Your task to perform on an android device: Go to accessibility settings Image 0: 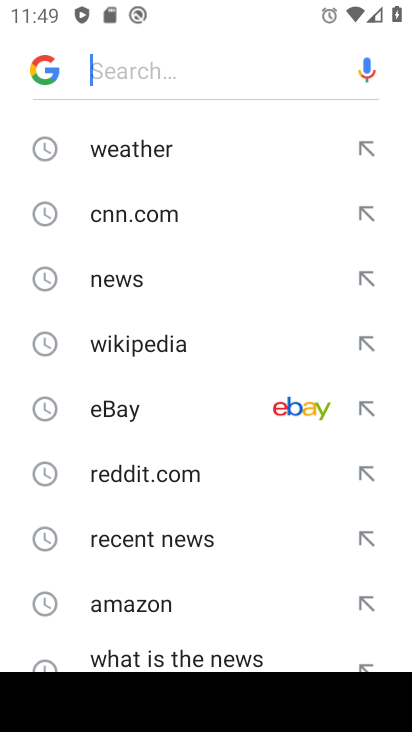
Step 0: press home button
Your task to perform on an android device: Go to accessibility settings Image 1: 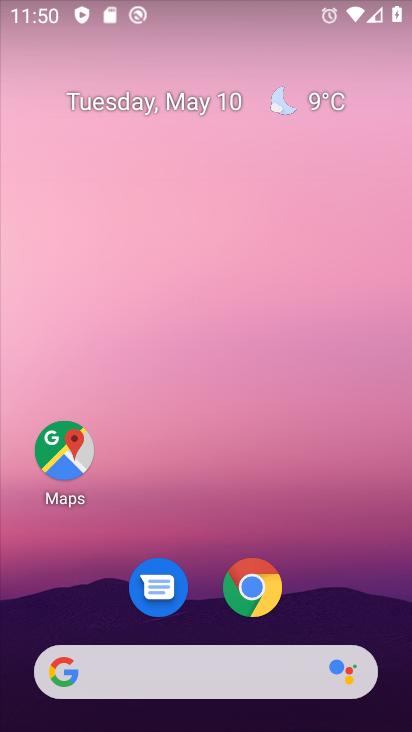
Step 1: drag from (331, 619) to (335, 62)
Your task to perform on an android device: Go to accessibility settings Image 2: 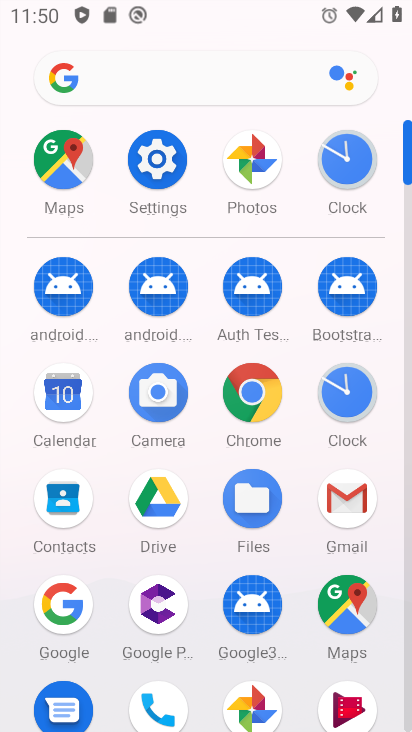
Step 2: click (156, 153)
Your task to perform on an android device: Go to accessibility settings Image 3: 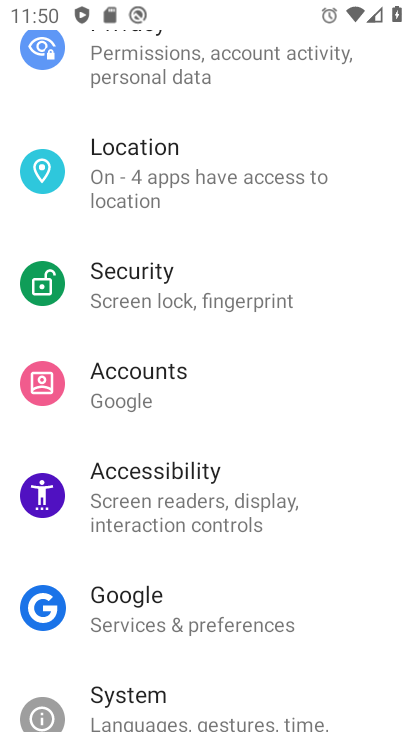
Step 3: click (124, 516)
Your task to perform on an android device: Go to accessibility settings Image 4: 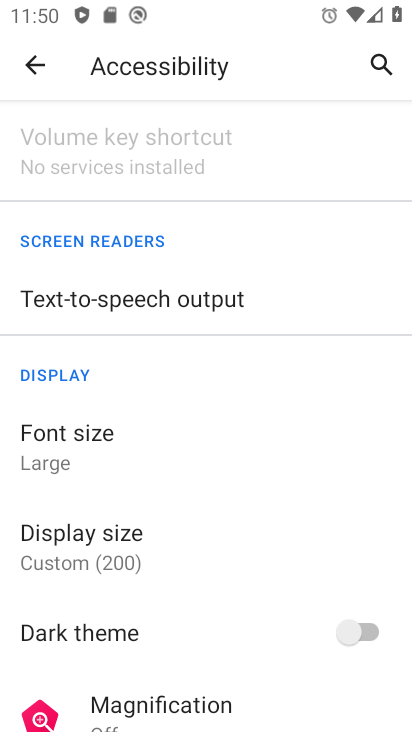
Step 4: task complete